Your task to perform on an android device: Show me popular videos on Youtube Image 0: 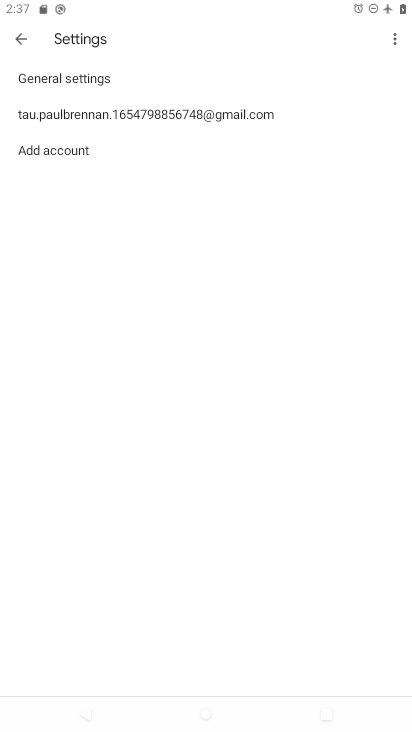
Step 0: press home button
Your task to perform on an android device: Show me popular videos on Youtube Image 1: 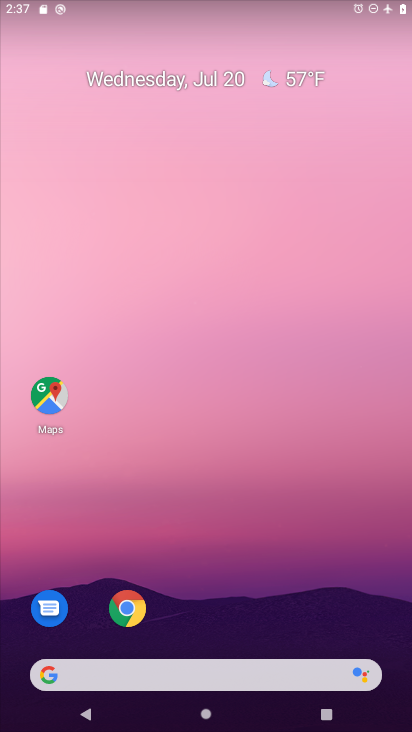
Step 1: drag from (273, 698) to (341, 182)
Your task to perform on an android device: Show me popular videos on Youtube Image 2: 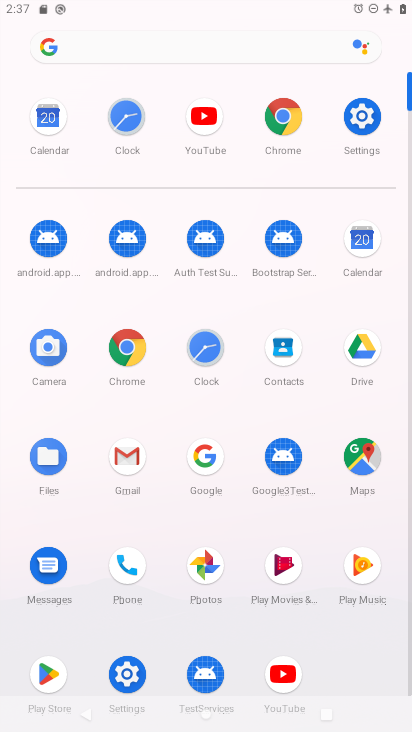
Step 2: click (290, 674)
Your task to perform on an android device: Show me popular videos on Youtube Image 3: 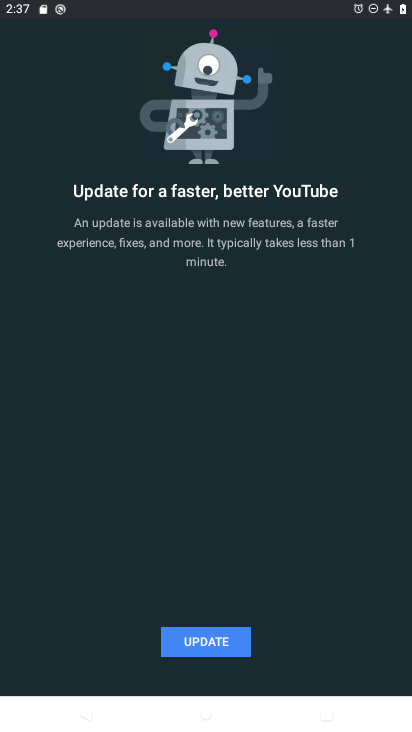
Step 3: click (240, 645)
Your task to perform on an android device: Show me popular videos on Youtube Image 4: 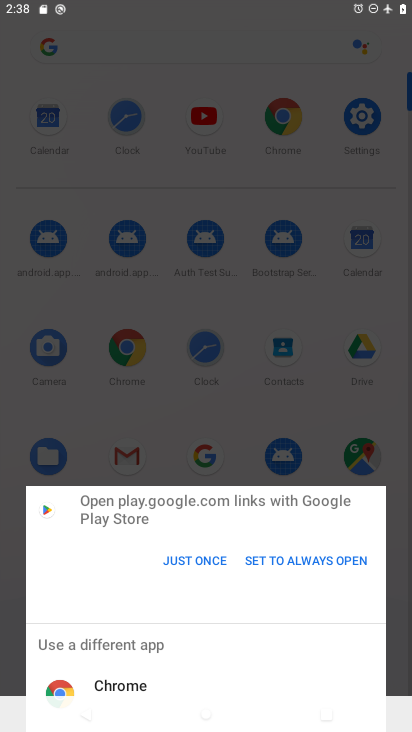
Step 4: click (204, 556)
Your task to perform on an android device: Show me popular videos on Youtube Image 5: 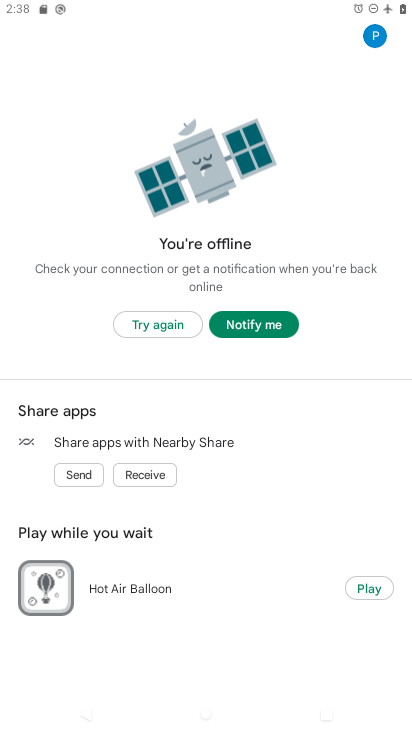
Step 5: task complete